Your task to perform on an android device: Go to eBay Image 0: 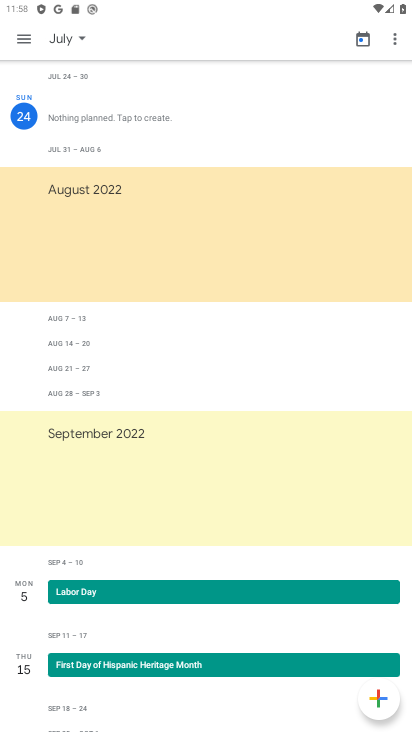
Step 0: press home button
Your task to perform on an android device: Go to eBay Image 1: 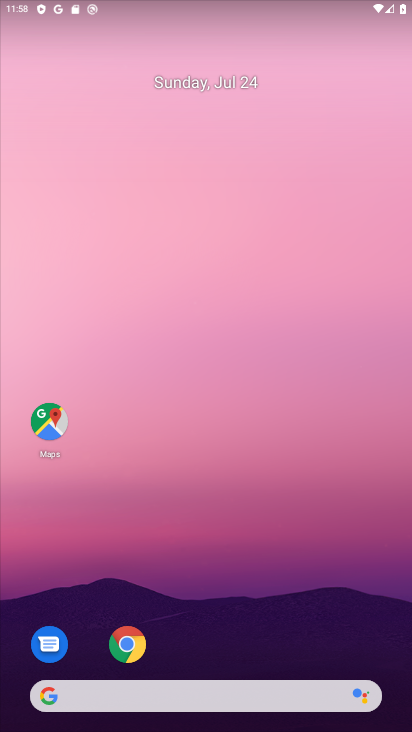
Step 1: drag from (202, 639) to (211, 97)
Your task to perform on an android device: Go to eBay Image 2: 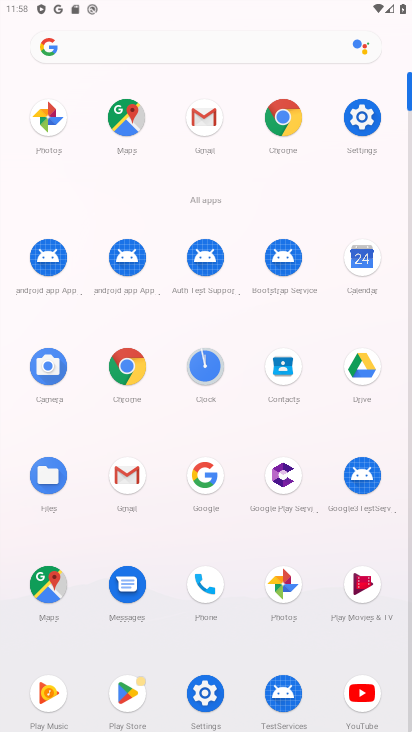
Step 2: click (286, 120)
Your task to perform on an android device: Go to eBay Image 3: 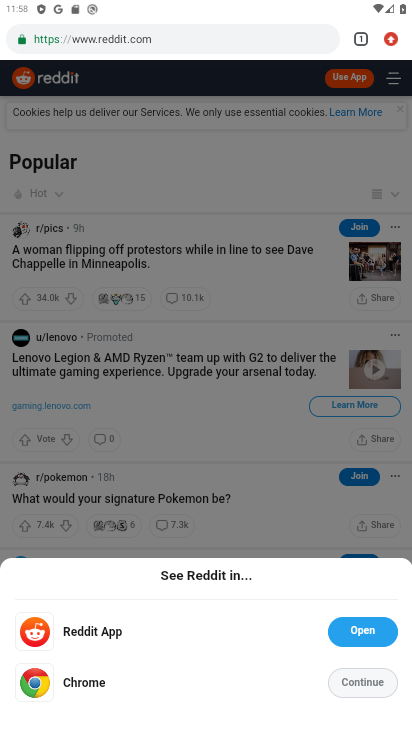
Step 3: click (293, 40)
Your task to perform on an android device: Go to eBay Image 4: 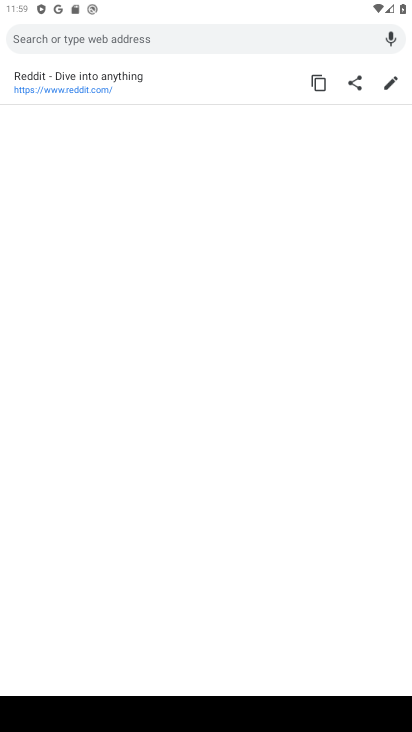
Step 4: type "ebay"
Your task to perform on an android device: Go to eBay Image 5: 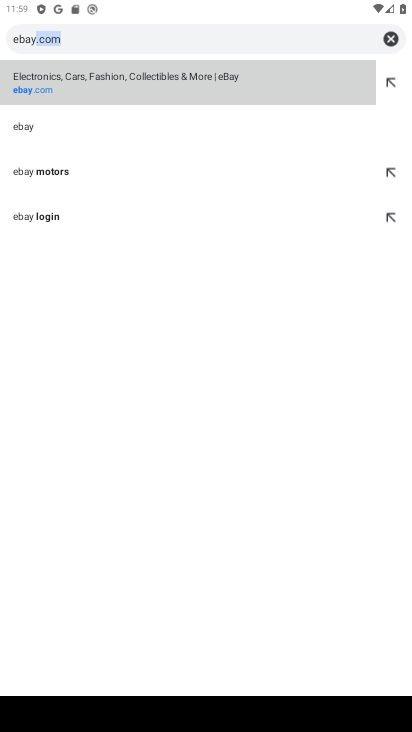
Step 5: click (246, 70)
Your task to perform on an android device: Go to eBay Image 6: 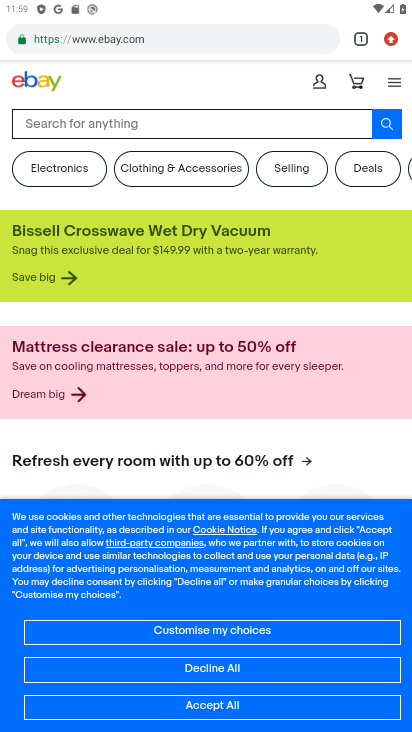
Step 6: task complete